Your task to perform on an android device: Open Amazon Image 0: 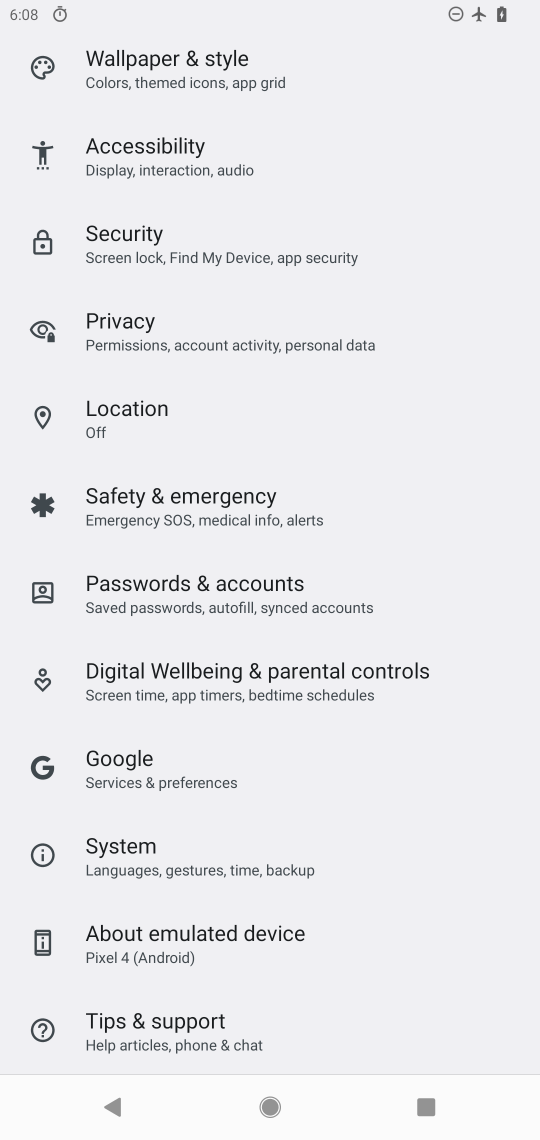
Step 0: press home button
Your task to perform on an android device: Open Amazon Image 1: 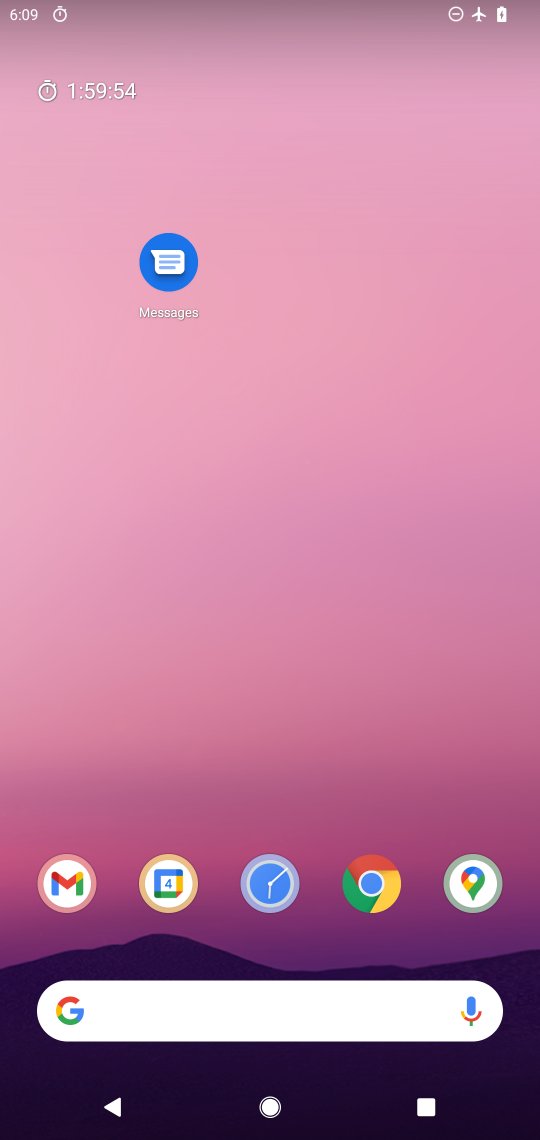
Step 1: click (379, 876)
Your task to perform on an android device: Open Amazon Image 2: 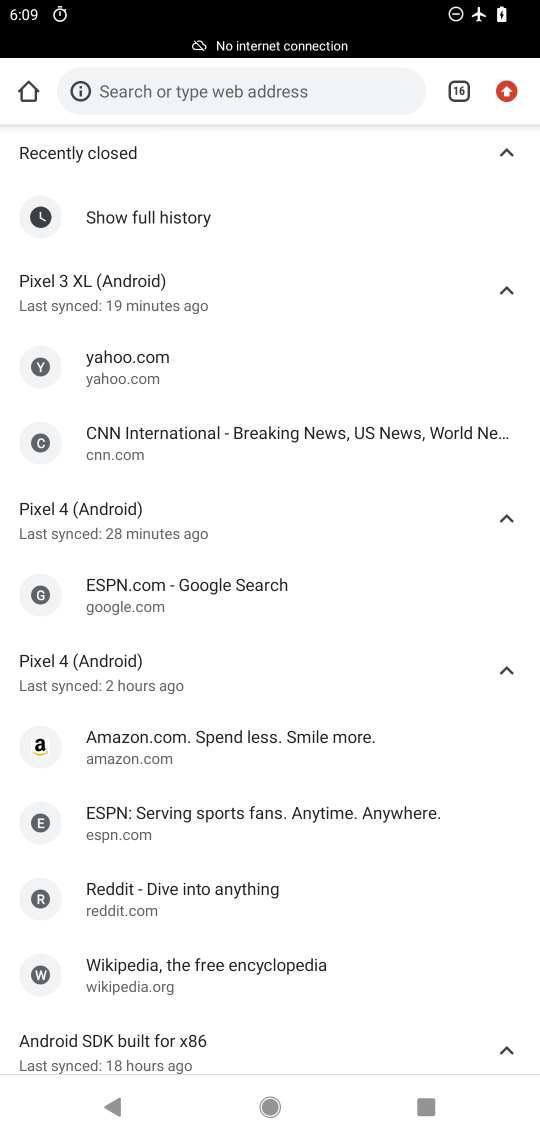
Step 2: click (505, 96)
Your task to perform on an android device: Open Amazon Image 3: 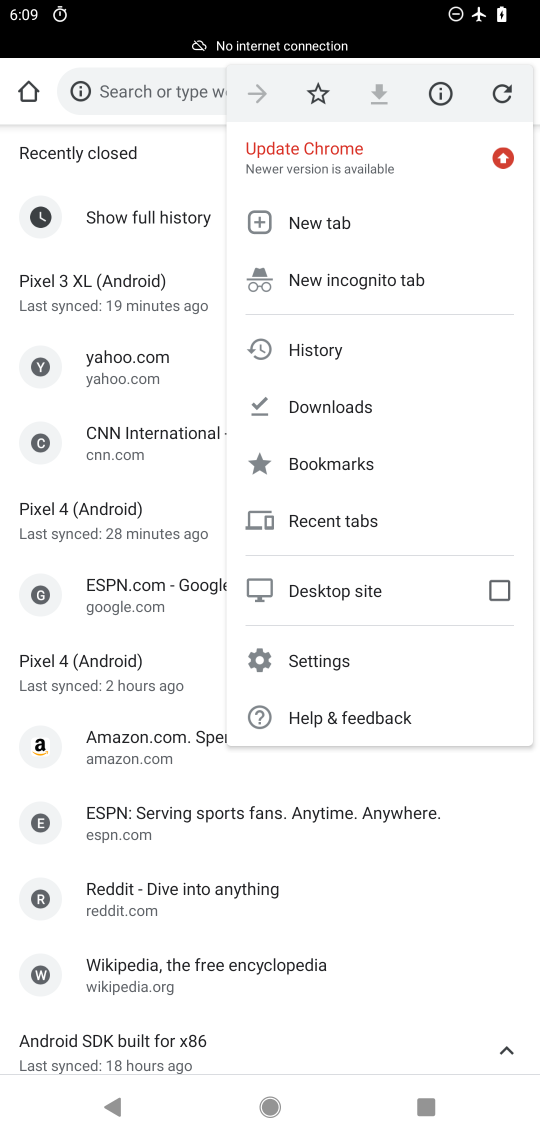
Step 3: click (318, 219)
Your task to perform on an android device: Open Amazon Image 4: 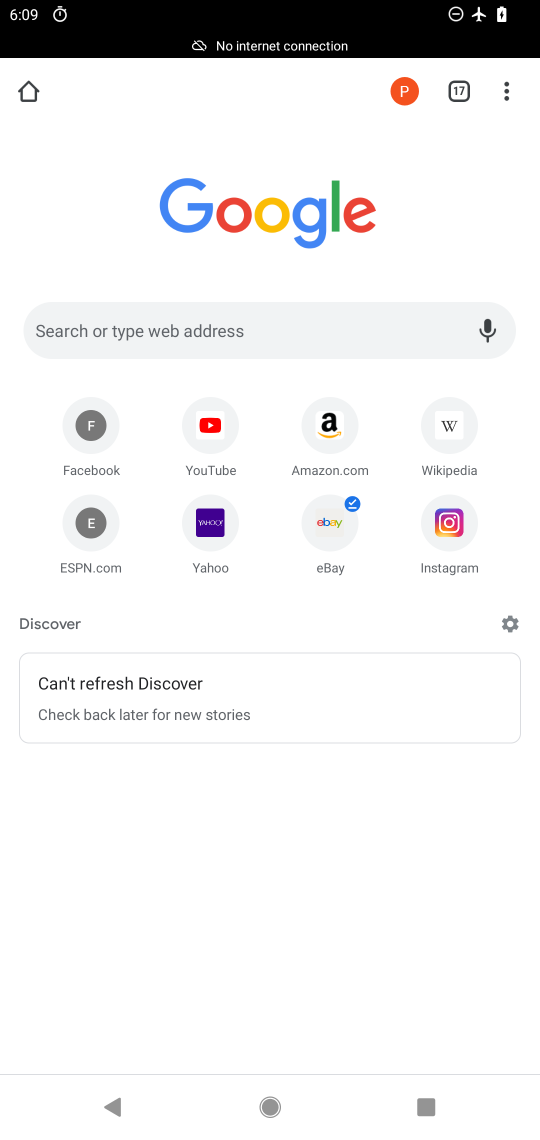
Step 4: click (329, 423)
Your task to perform on an android device: Open Amazon Image 5: 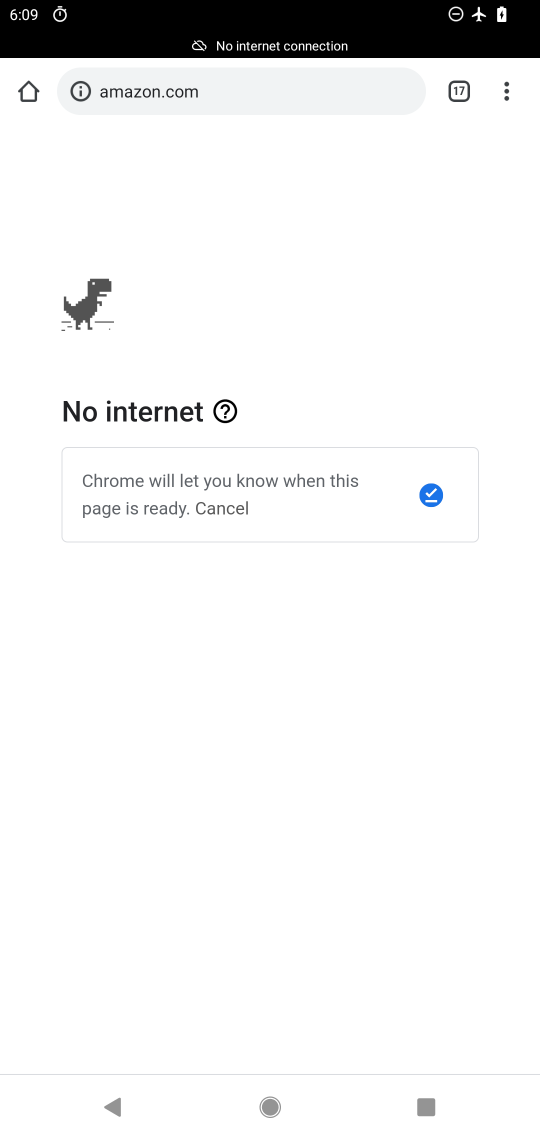
Step 5: task complete